Your task to perform on an android device: Open the phone app and click the voicemail tab. Image 0: 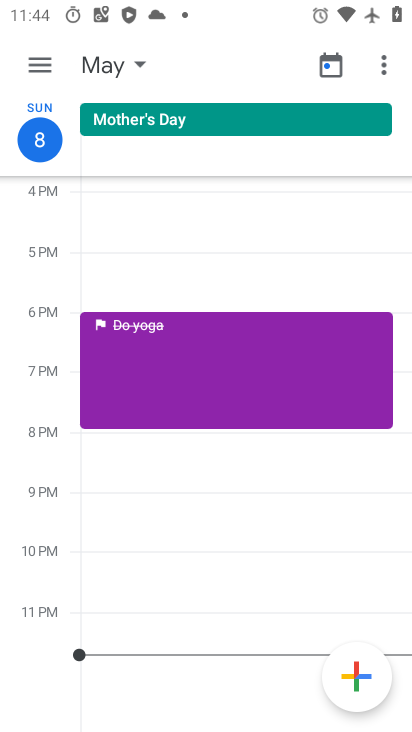
Step 0: press home button
Your task to perform on an android device: Open the phone app and click the voicemail tab. Image 1: 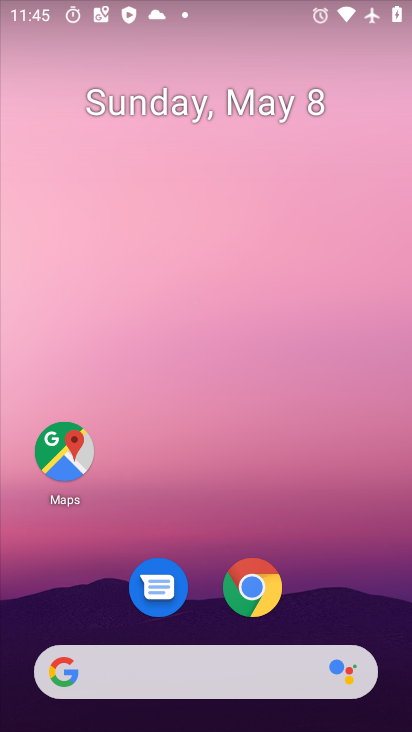
Step 1: drag from (394, 581) to (210, 22)
Your task to perform on an android device: Open the phone app and click the voicemail tab. Image 2: 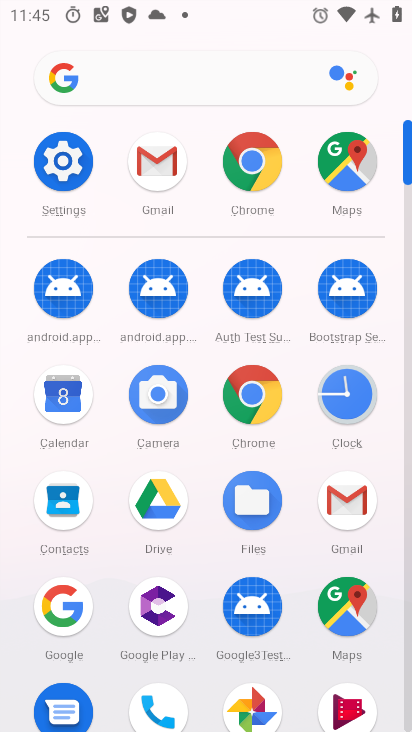
Step 2: click (142, 701)
Your task to perform on an android device: Open the phone app and click the voicemail tab. Image 3: 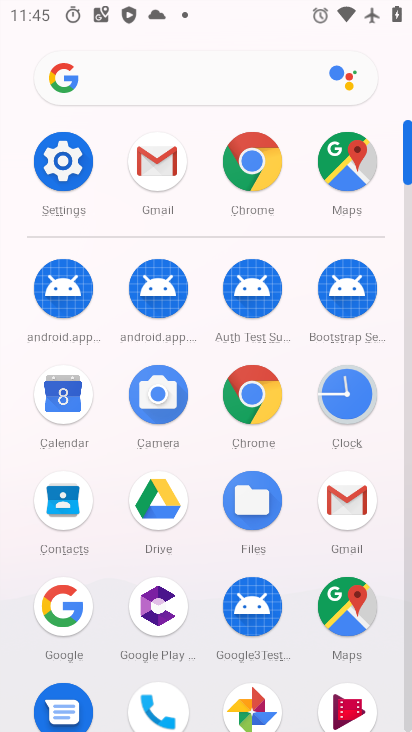
Step 3: click (142, 701)
Your task to perform on an android device: Open the phone app and click the voicemail tab. Image 4: 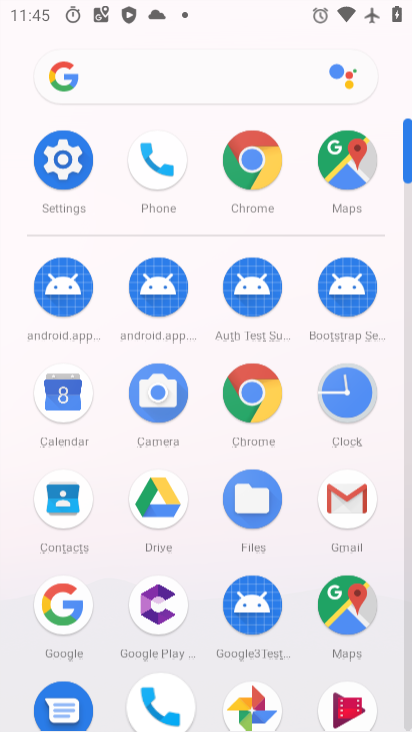
Step 4: click (143, 700)
Your task to perform on an android device: Open the phone app and click the voicemail tab. Image 5: 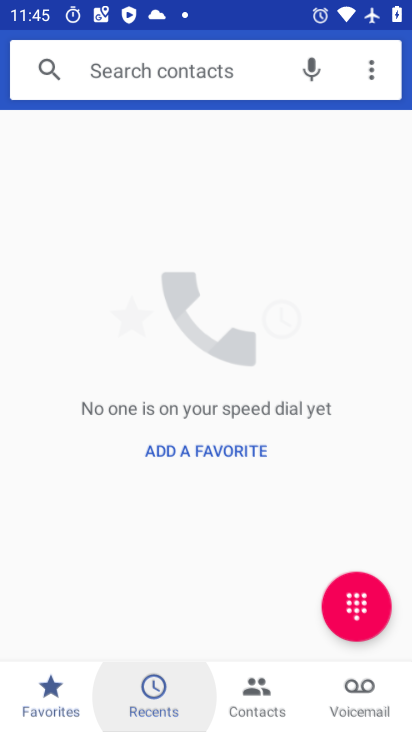
Step 5: click (144, 682)
Your task to perform on an android device: Open the phone app and click the voicemail tab. Image 6: 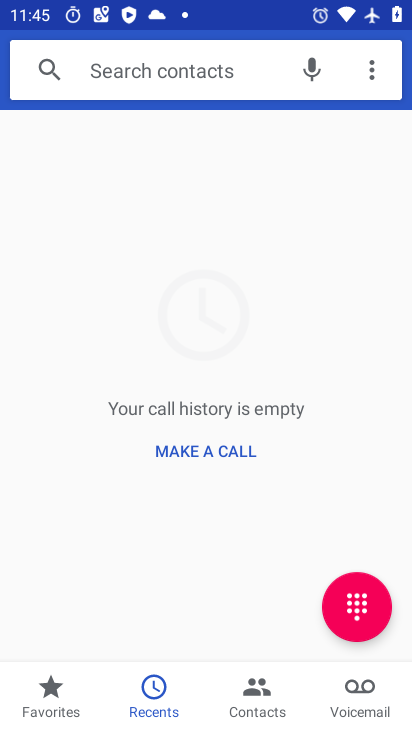
Step 6: click (365, 687)
Your task to perform on an android device: Open the phone app and click the voicemail tab. Image 7: 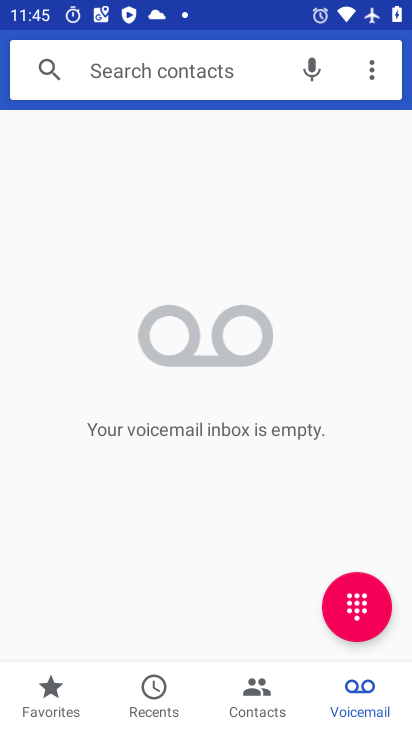
Step 7: click (330, 641)
Your task to perform on an android device: Open the phone app and click the voicemail tab. Image 8: 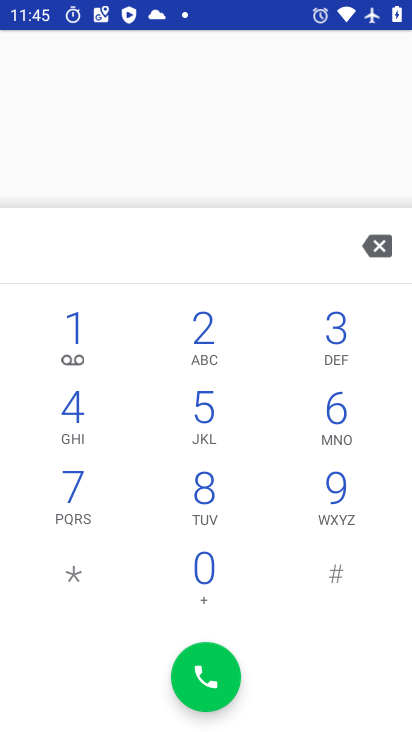
Step 8: press home button
Your task to perform on an android device: Open the phone app and click the voicemail tab. Image 9: 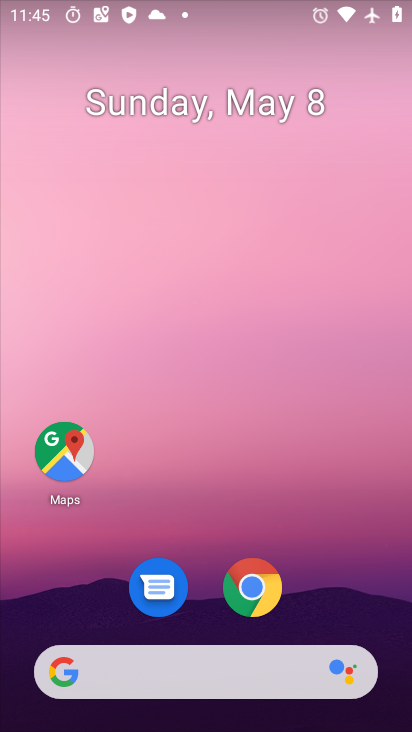
Step 9: drag from (338, 647) to (177, 142)
Your task to perform on an android device: Open the phone app and click the voicemail tab. Image 10: 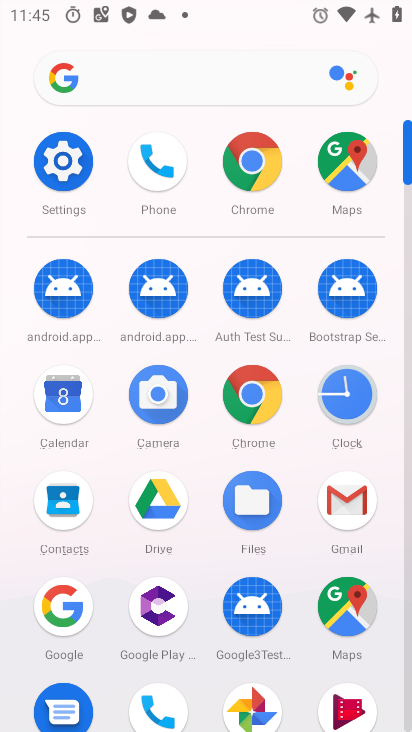
Step 10: click (148, 698)
Your task to perform on an android device: Open the phone app and click the voicemail tab. Image 11: 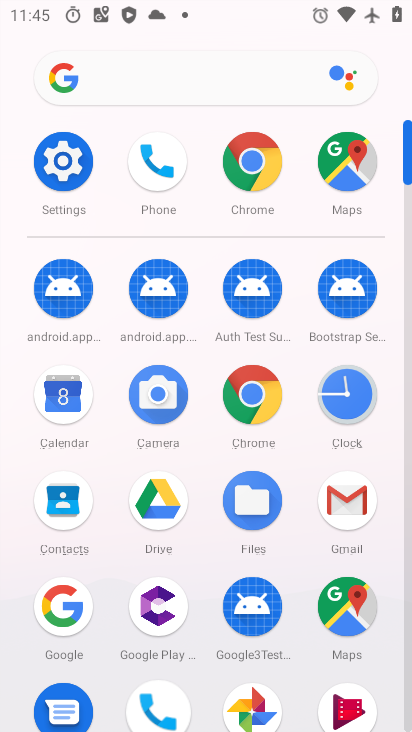
Step 11: click (150, 695)
Your task to perform on an android device: Open the phone app and click the voicemail tab. Image 12: 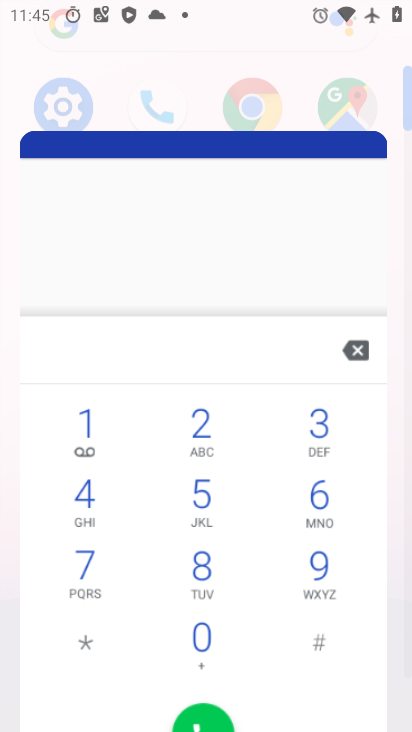
Step 12: click (150, 695)
Your task to perform on an android device: Open the phone app and click the voicemail tab. Image 13: 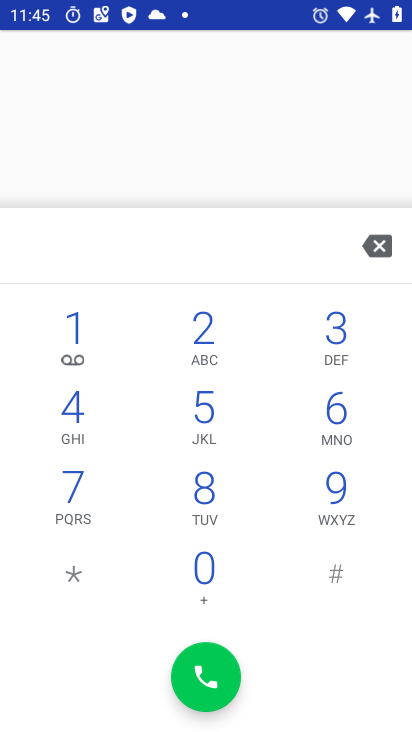
Step 13: click (385, 236)
Your task to perform on an android device: Open the phone app and click the voicemail tab. Image 14: 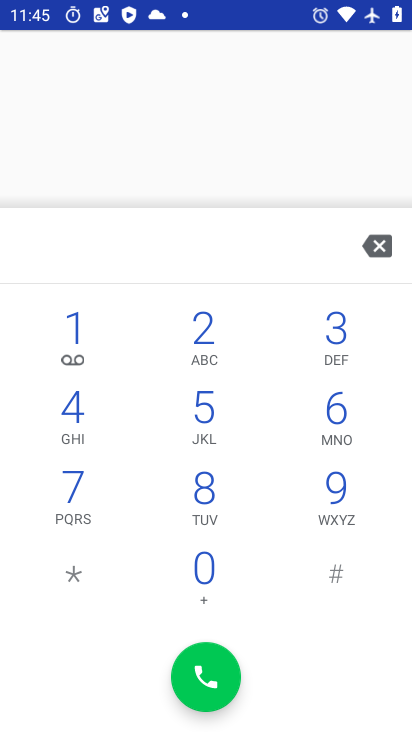
Step 14: click (381, 246)
Your task to perform on an android device: Open the phone app and click the voicemail tab. Image 15: 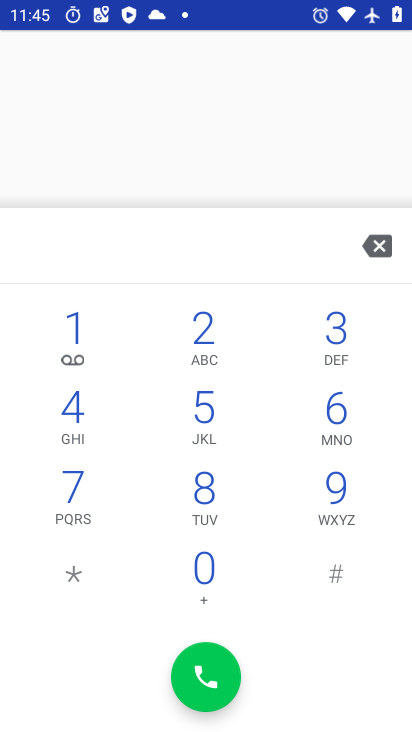
Step 15: press back button
Your task to perform on an android device: Open the phone app and click the voicemail tab. Image 16: 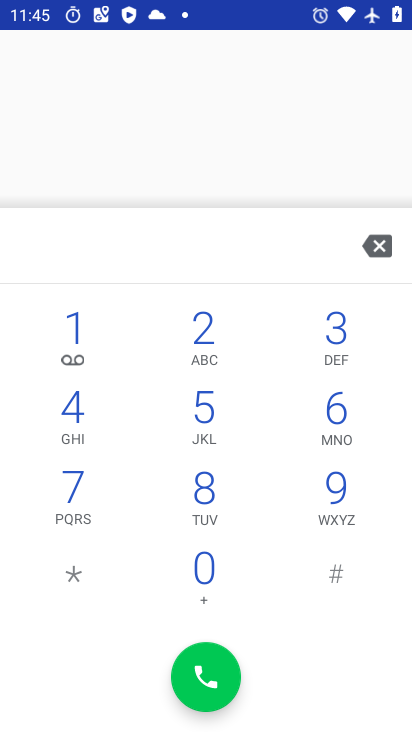
Step 16: press back button
Your task to perform on an android device: Open the phone app and click the voicemail tab. Image 17: 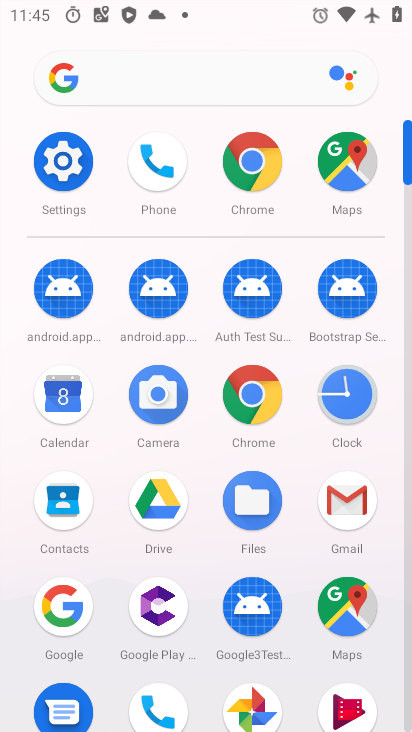
Step 17: click (160, 702)
Your task to perform on an android device: Open the phone app and click the voicemail tab. Image 18: 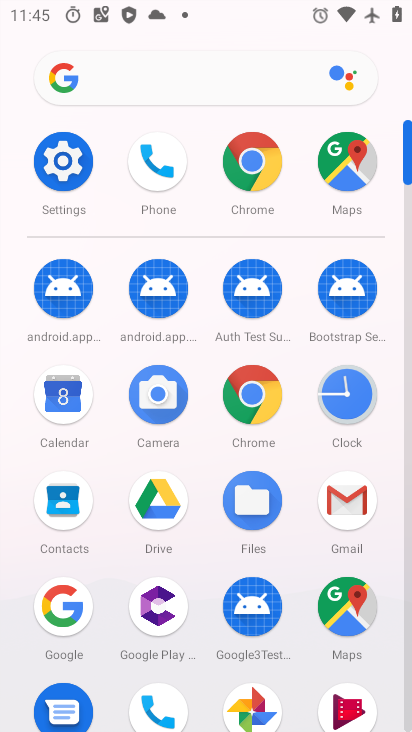
Step 18: click (161, 701)
Your task to perform on an android device: Open the phone app and click the voicemail tab. Image 19: 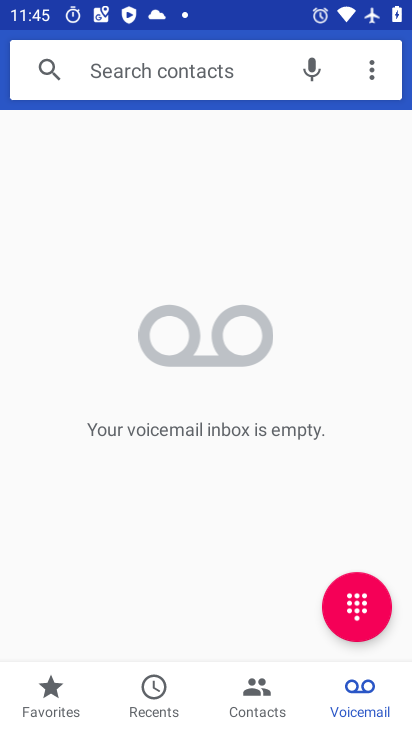
Step 19: click (340, 687)
Your task to perform on an android device: Open the phone app and click the voicemail tab. Image 20: 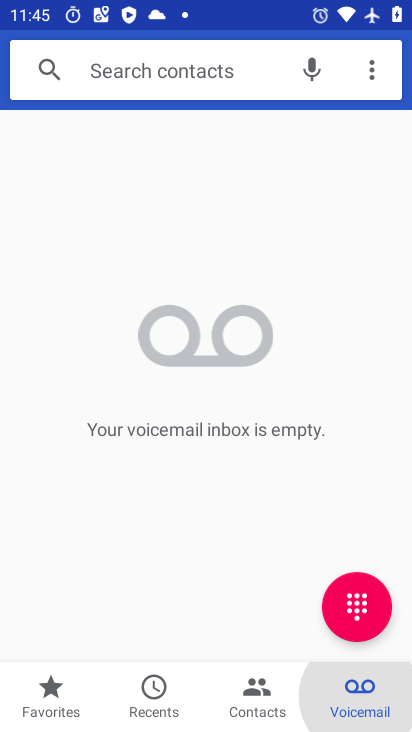
Step 20: click (344, 688)
Your task to perform on an android device: Open the phone app and click the voicemail tab. Image 21: 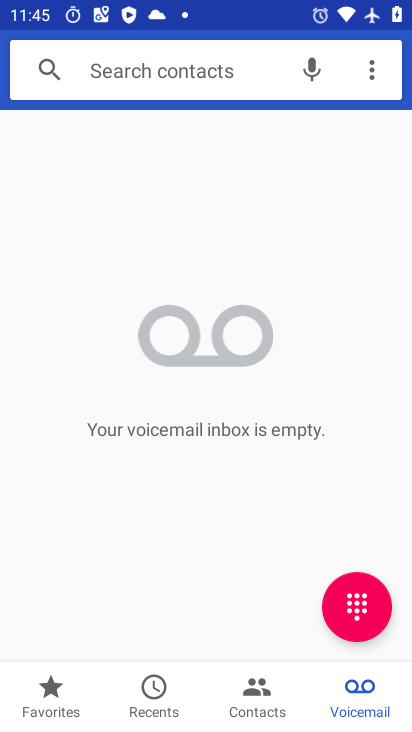
Step 21: task complete